Your task to perform on an android device: turn pop-ups off in chrome Image 0: 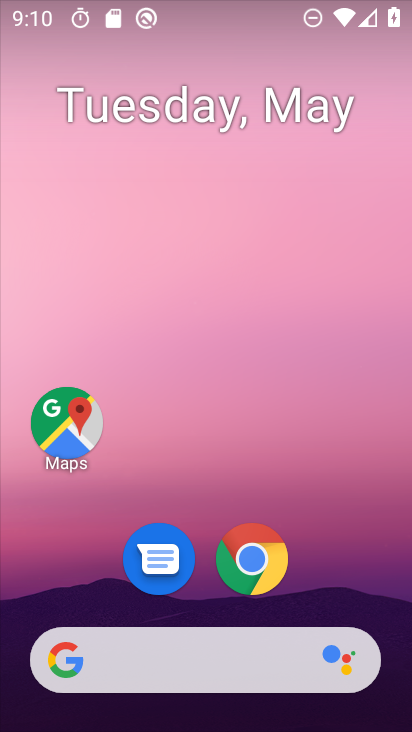
Step 0: drag from (407, 627) to (279, 51)
Your task to perform on an android device: turn pop-ups off in chrome Image 1: 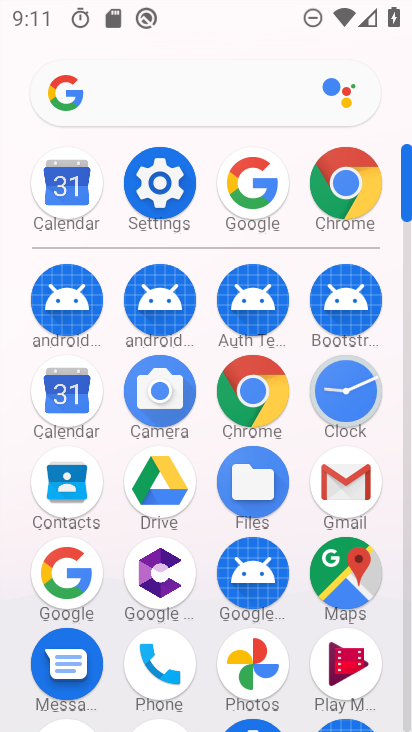
Step 1: click (369, 211)
Your task to perform on an android device: turn pop-ups off in chrome Image 2: 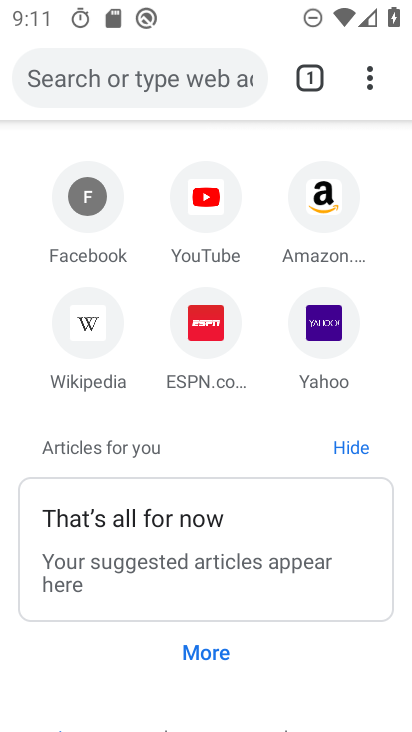
Step 2: click (368, 73)
Your task to perform on an android device: turn pop-ups off in chrome Image 3: 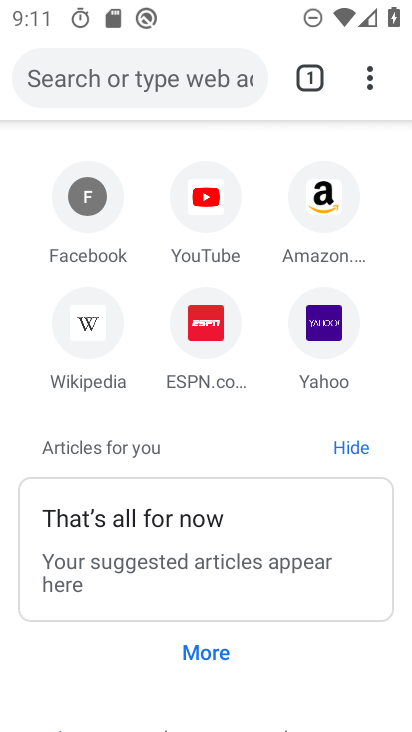
Step 3: click (368, 73)
Your task to perform on an android device: turn pop-ups off in chrome Image 4: 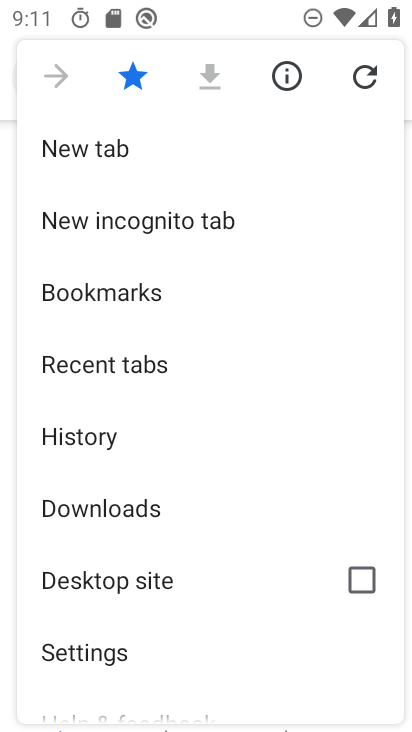
Step 4: click (98, 675)
Your task to perform on an android device: turn pop-ups off in chrome Image 5: 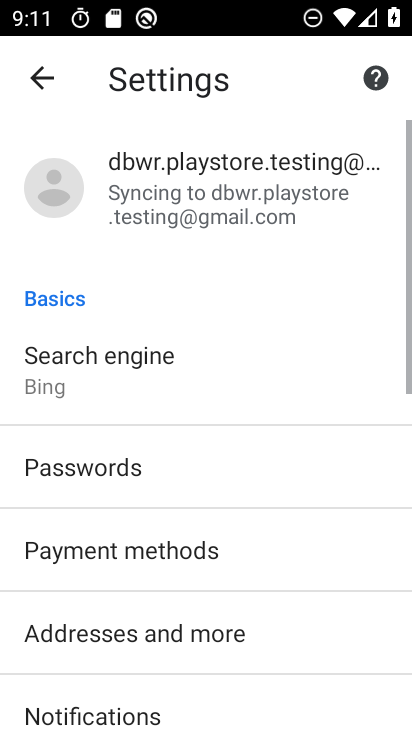
Step 5: drag from (98, 675) to (191, 149)
Your task to perform on an android device: turn pop-ups off in chrome Image 6: 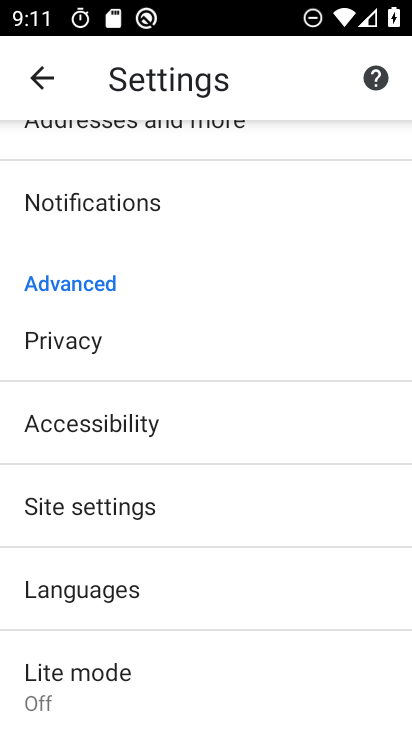
Step 6: click (162, 523)
Your task to perform on an android device: turn pop-ups off in chrome Image 7: 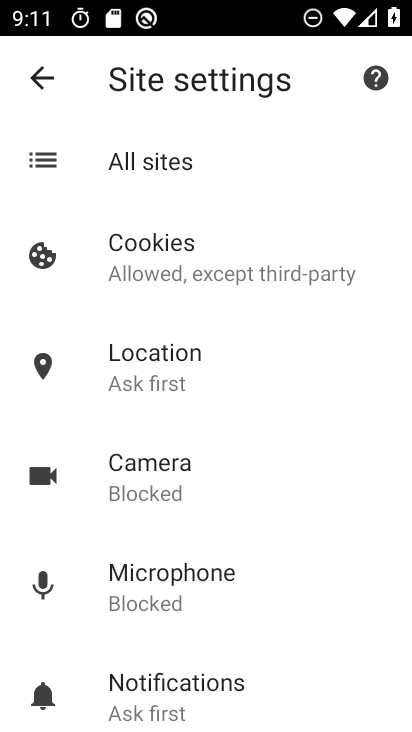
Step 7: drag from (186, 683) to (232, 184)
Your task to perform on an android device: turn pop-ups off in chrome Image 8: 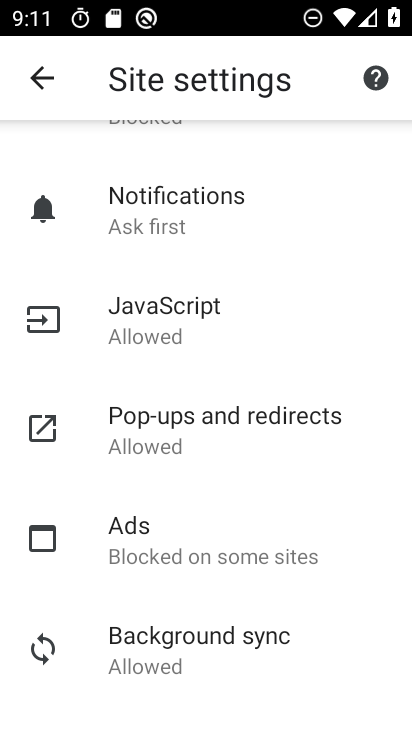
Step 8: click (250, 430)
Your task to perform on an android device: turn pop-ups off in chrome Image 9: 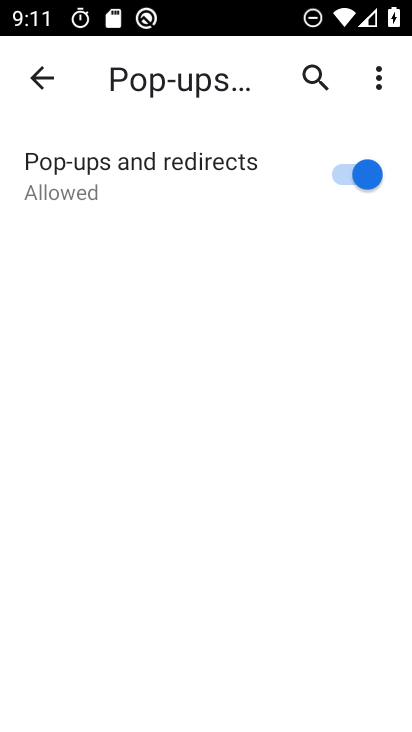
Step 9: click (317, 177)
Your task to perform on an android device: turn pop-ups off in chrome Image 10: 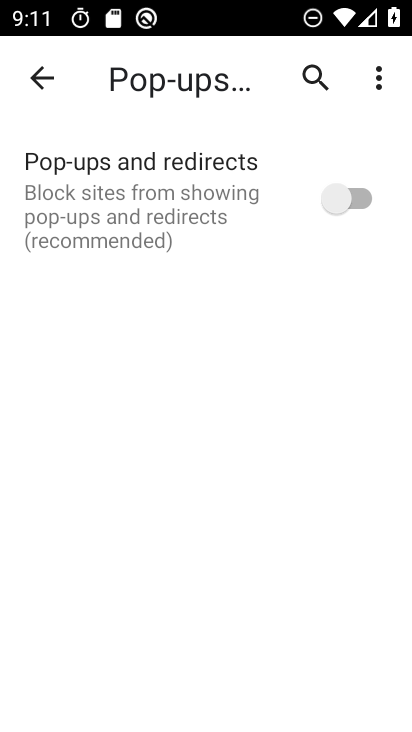
Step 10: task complete